Your task to perform on an android device: turn off wifi Image 0: 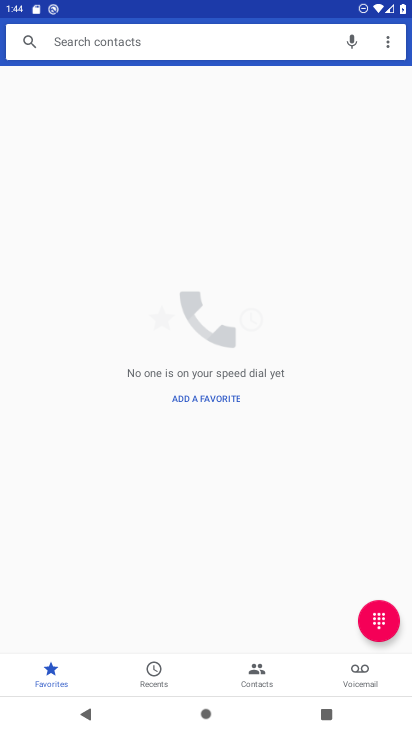
Step 0: press home button
Your task to perform on an android device: turn off wifi Image 1: 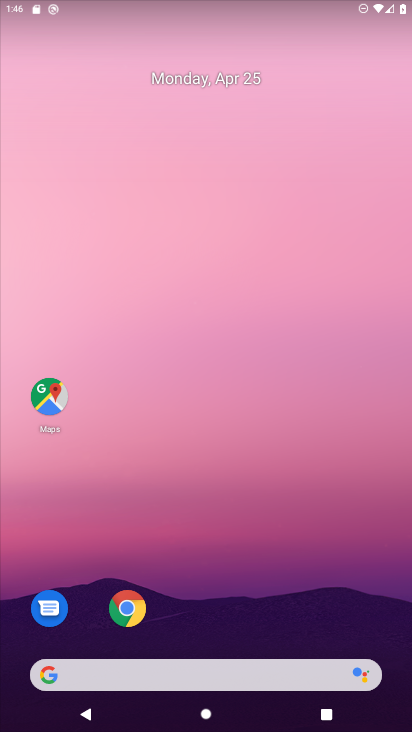
Step 1: drag from (148, 6) to (234, 484)
Your task to perform on an android device: turn off wifi Image 2: 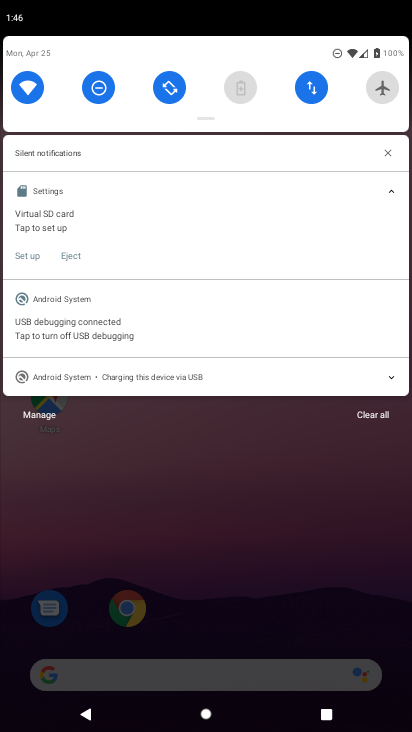
Step 2: click (25, 92)
Your task to perform on an android device: turn off wifi Image 3: 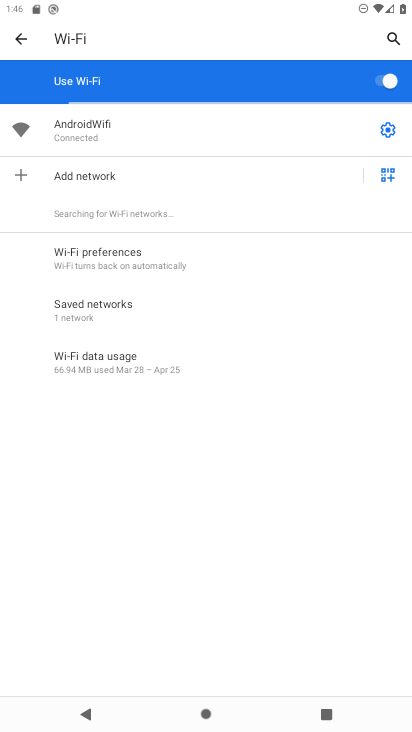
Step 3: click (386, 84)
Your task to perform on an android device: turn off wifi Image 4: 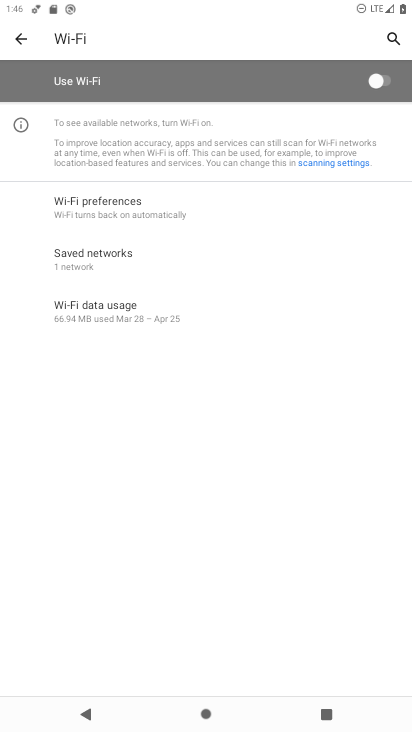
Step 4: task complete